Your task to perform on an android device: find snoozed emails in the gmail app Image 0: 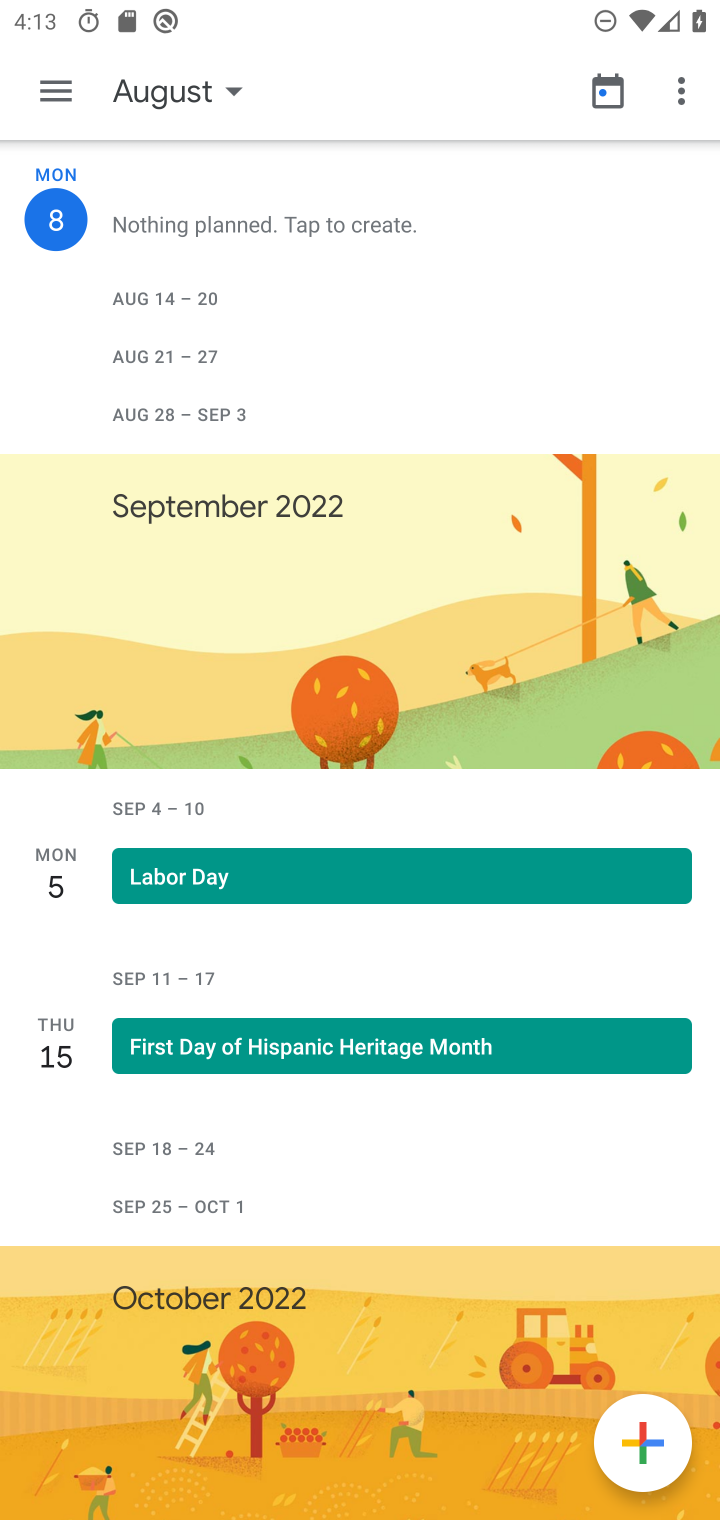
Step 0: press back button
Your task to perform on an android device: find snoozed emails in the gmail app Image 1: 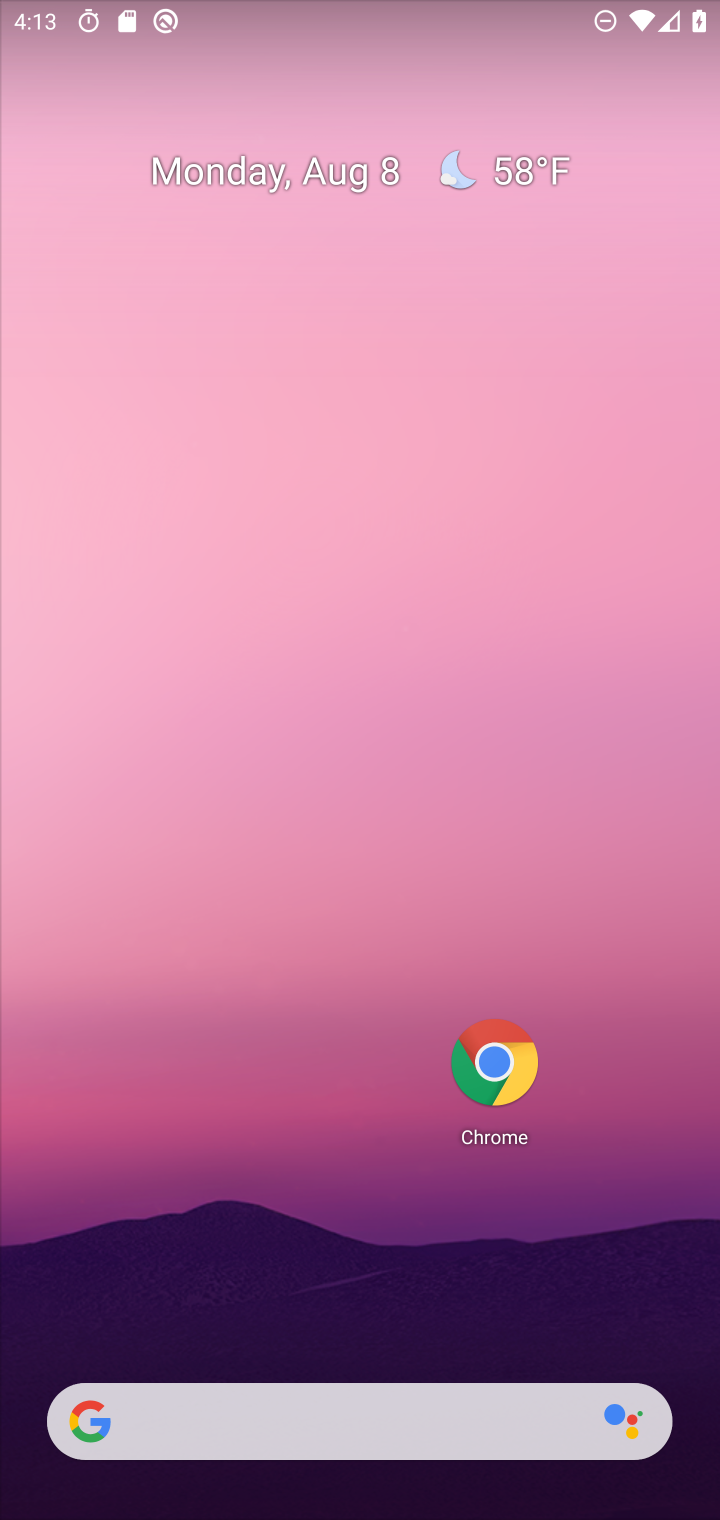
Step 1: drag from (280, 1355) to (395, 21)
Your task to perform on an android device: find snoozed emails in the gmail app Image 2: 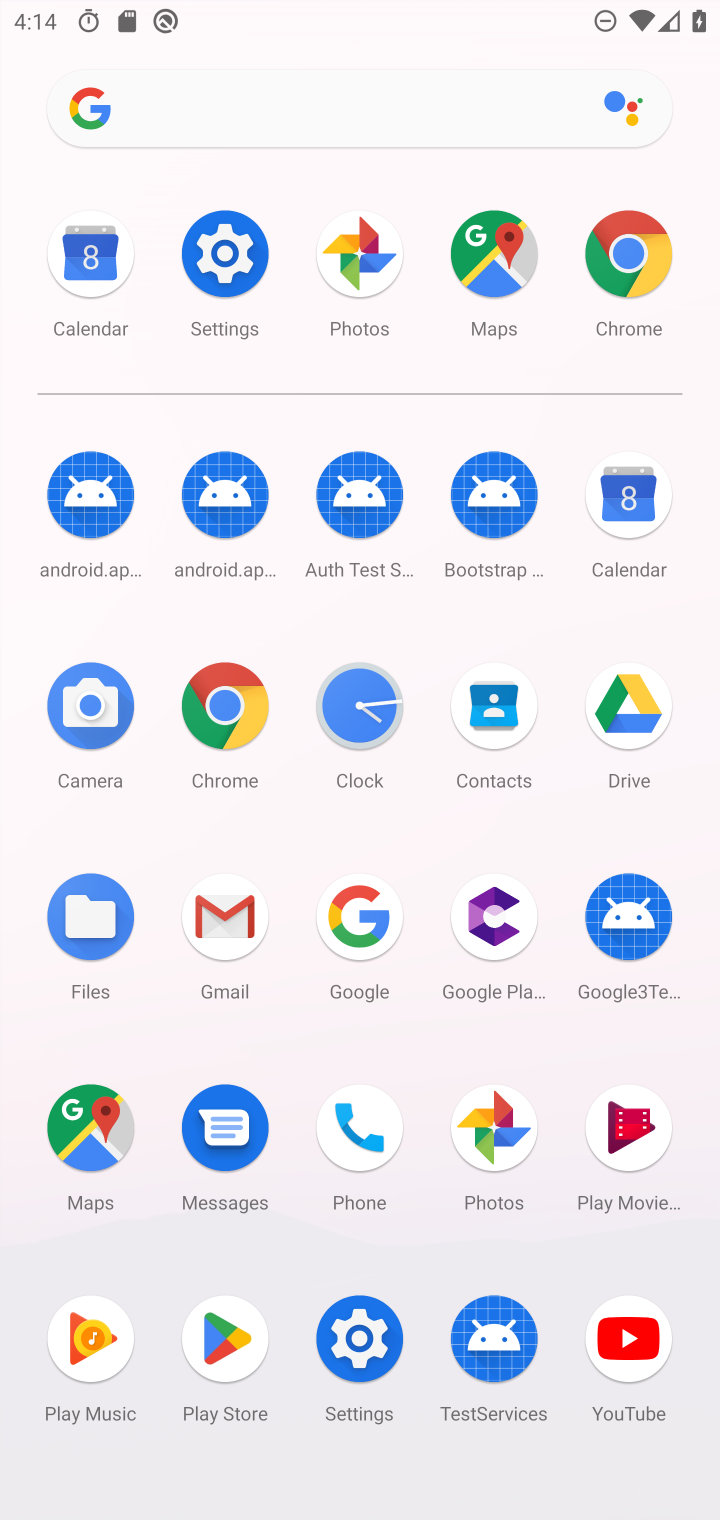
Step 2: click (243, 936)
Your task to perform on an android device: find snoozed emails in the gmail app Image 3: 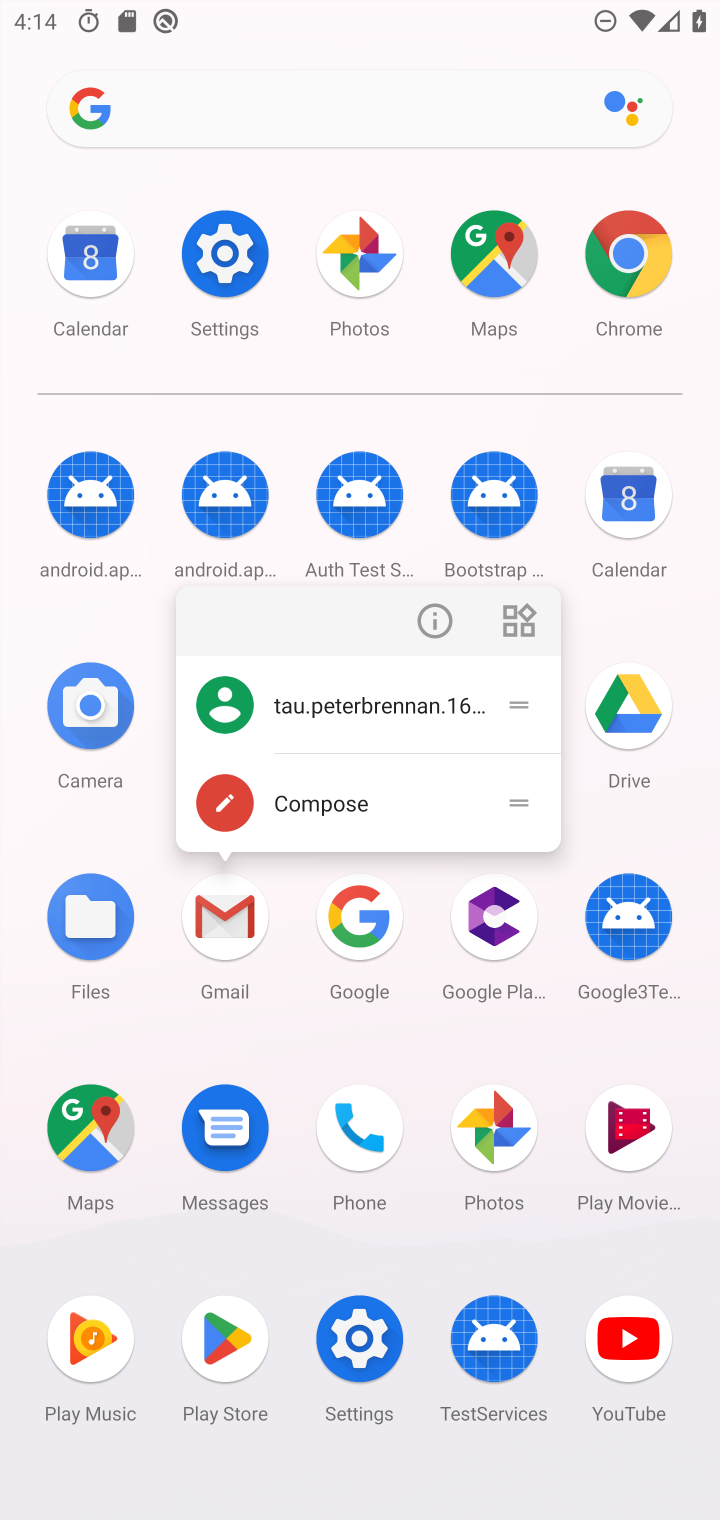
Step 3: click (225, 932)
Your task to perform on an android device: find snoozed emails in the gmail app Image 4: 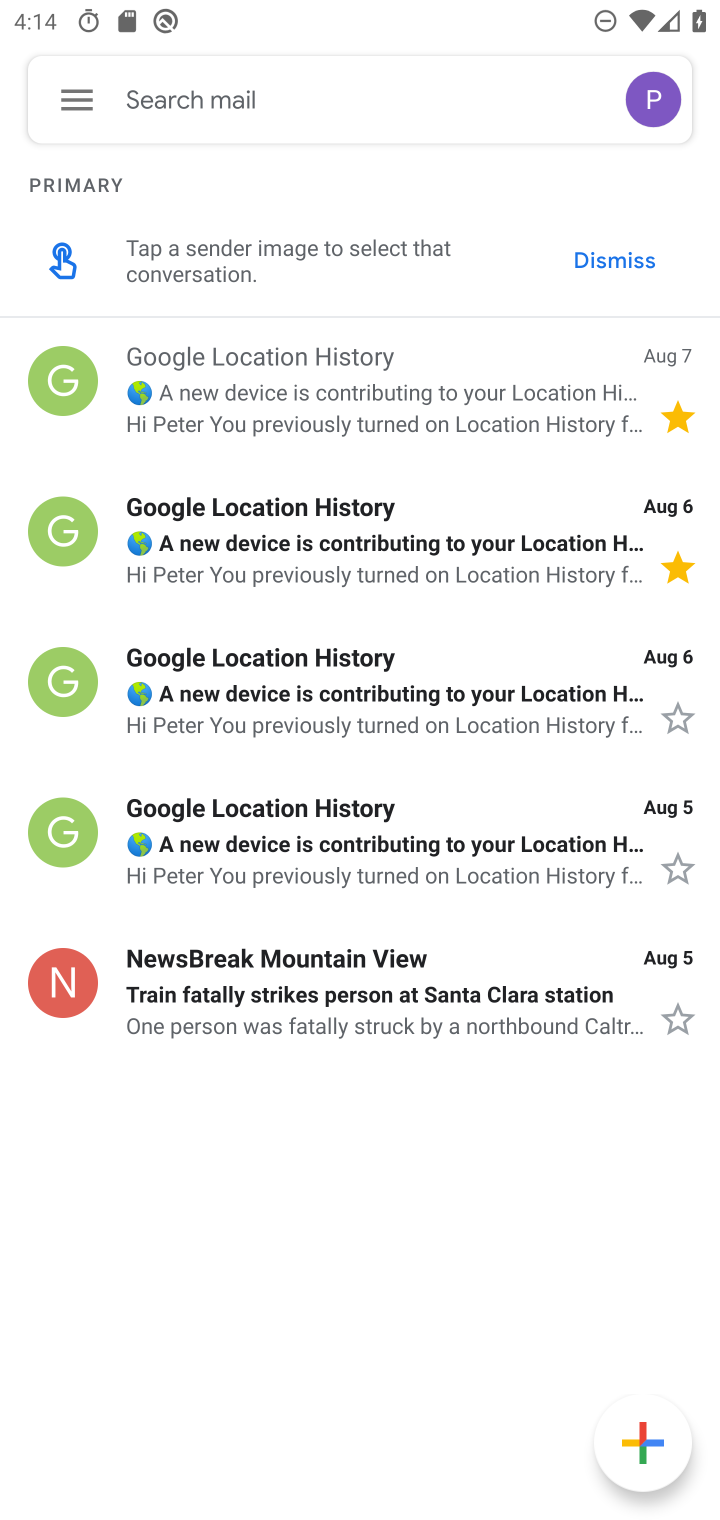
Step 4: click (72, 90)
Your task to perform on an android device: find snoozed emails in the gmail app Image 5: 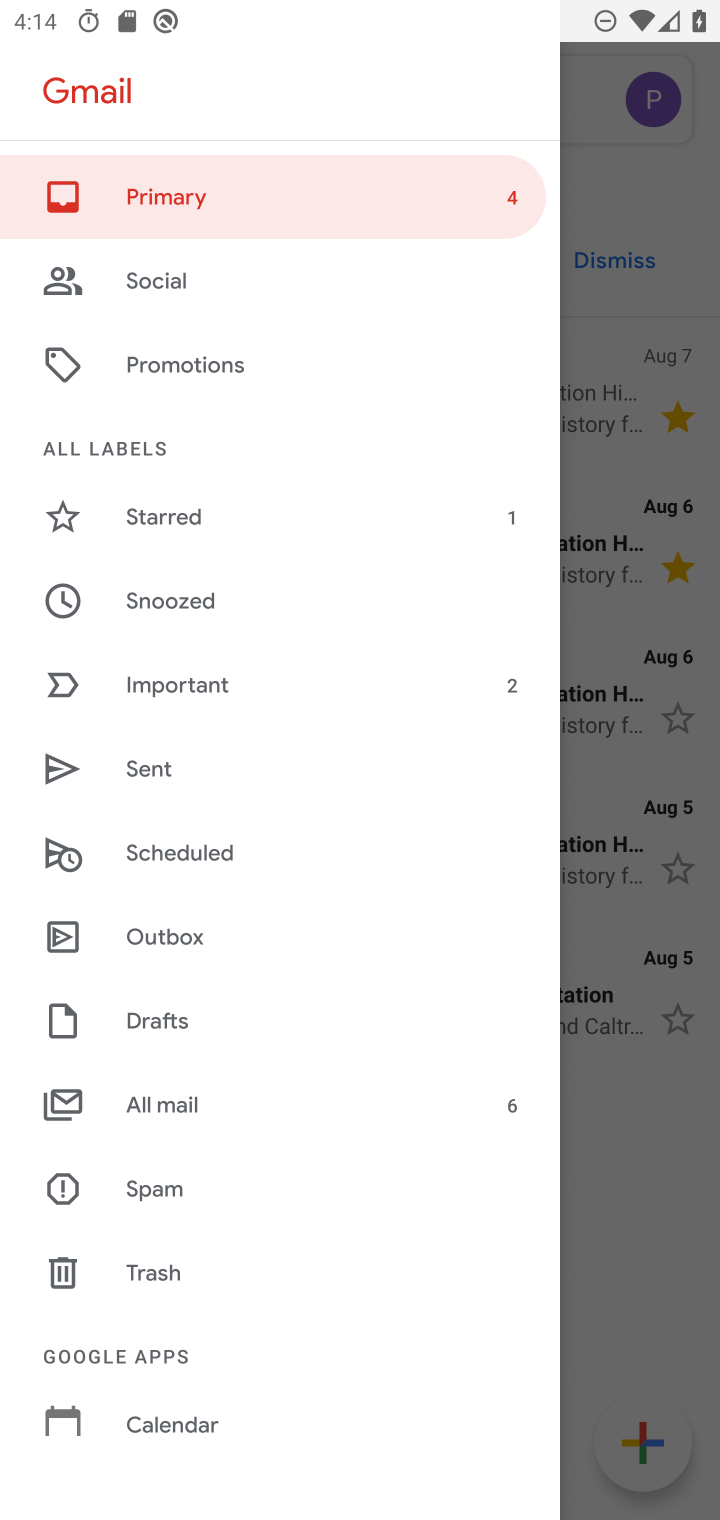
Step 5: click (235, 586)
Your task to perform on an android device: find snoozed emails in the gmail app Image 6: 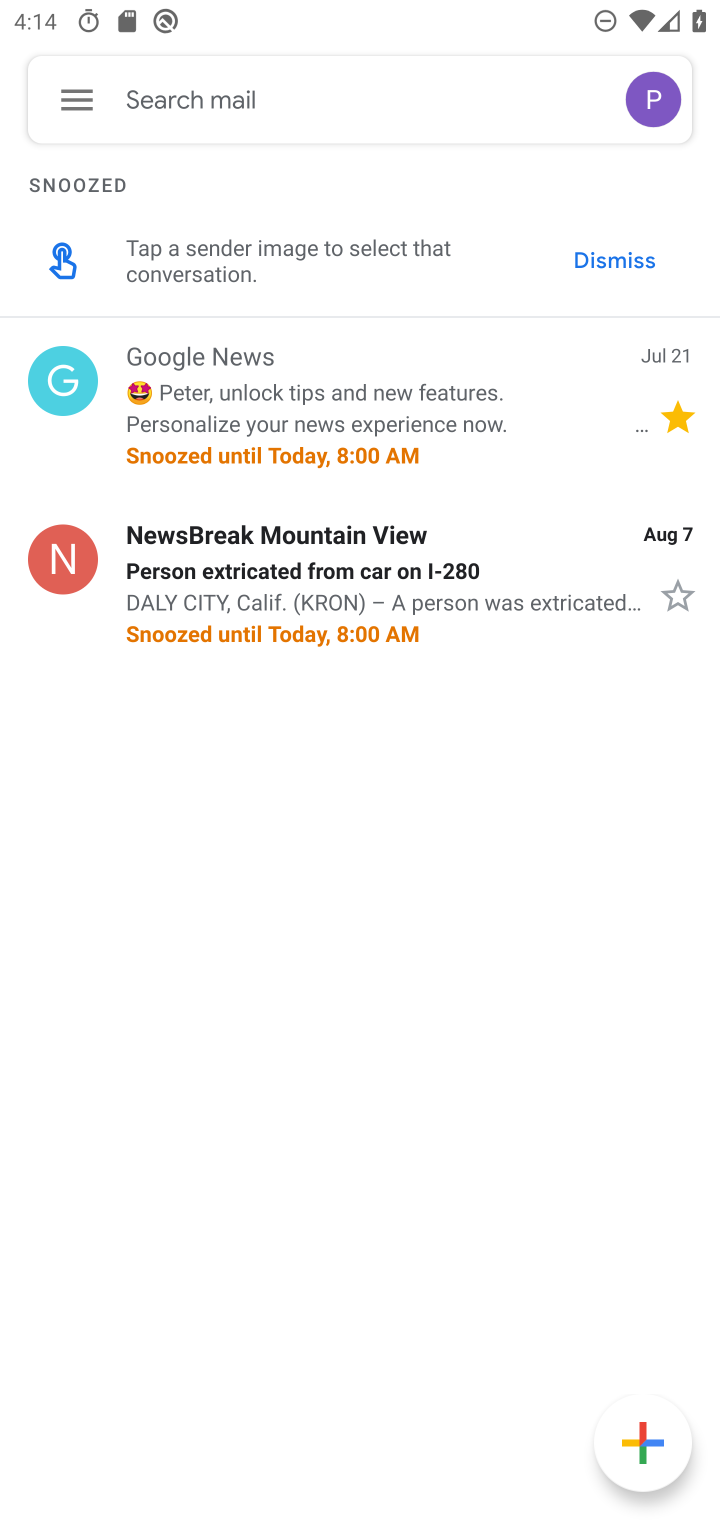
Step 6: task complete